Your task to perform on an android device: change the clock display to analog Image 0: 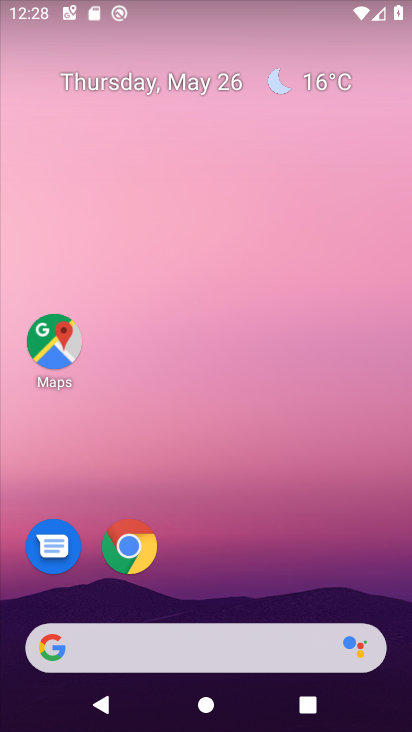
Step 0: drag from (246, 274) to (262, 213)
Your task to perform on an android device: change the clock display to analog Image 1: 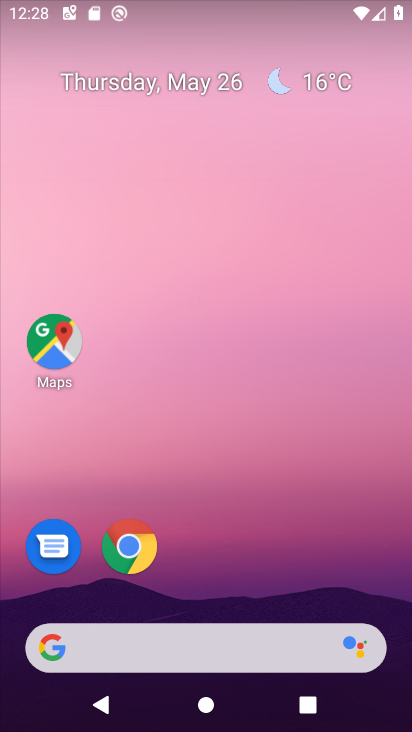
Step 1: drag from (175, 495) to (205, 200)
Your task to perform on an android device: change the clock display to analog Image 2: 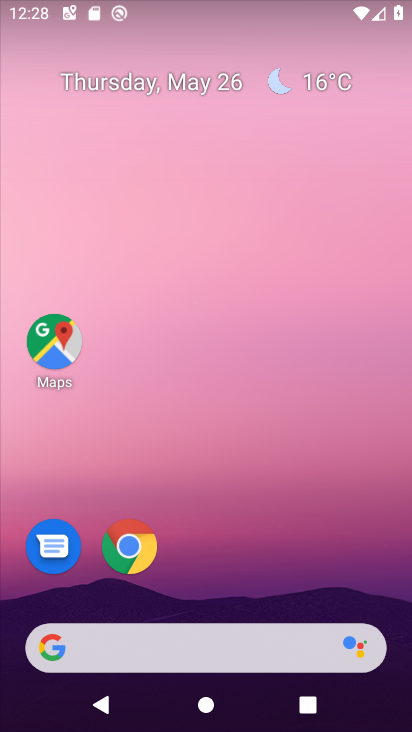
Step 2: drag from (191, 572) to (270, 60)
Your task to perform on an android device: change the clock display to analog Image 3: 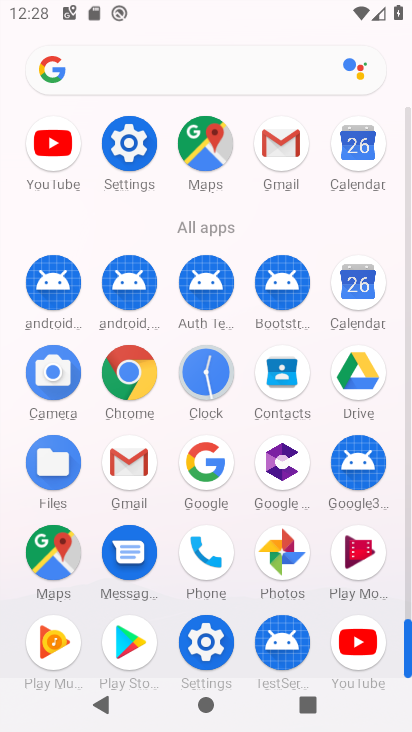
Step 3: click (210, 368)
Your task to perform on an android device: change the clock display to analog Image 4: 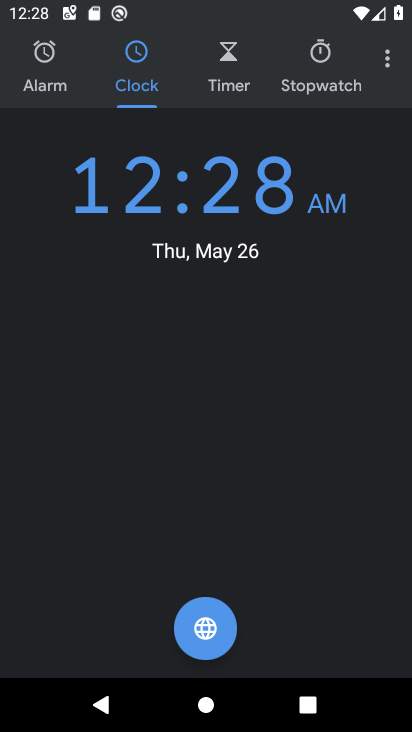
Step 4: click (388, 59)
Your task to perform on an android device: change the clock display to analog Image 5: 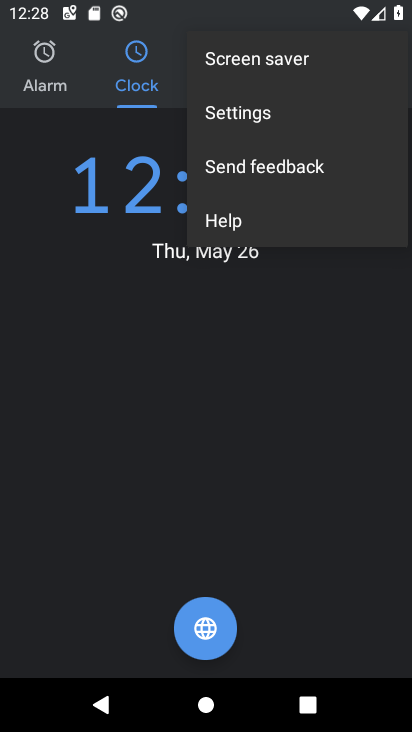
Step 5: click (267, 112)
Your task to perform on an android device: change the clock display to analog Image 6: 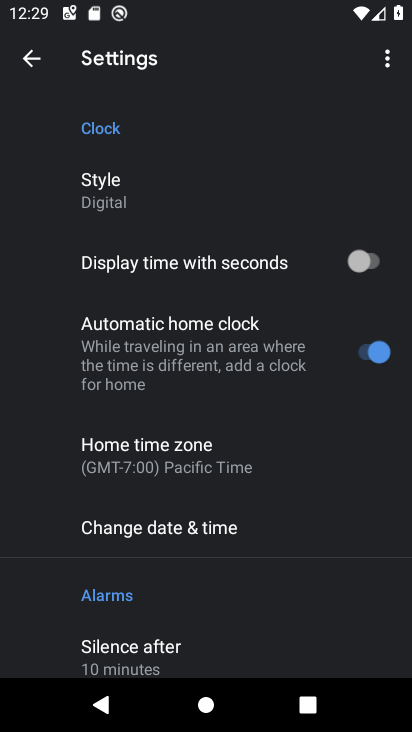
Step 6: click (101, 199)
Your task to perform on an android device: change the clock display to analog Image 7: 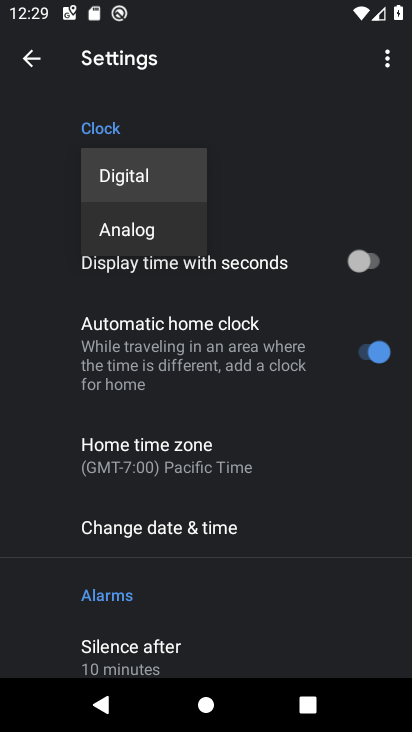
Step 7: click (100, 231)
Your task to perform on an android device: change the clock display to analog Image 8: 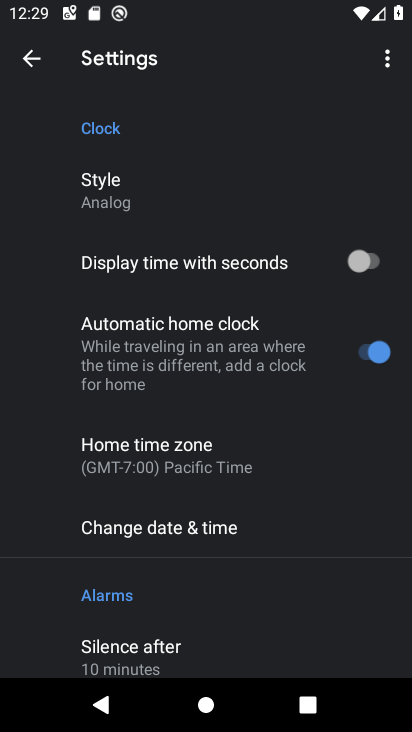
Step 8: task complete